Your task to perform on an android device: add a contact in the contacts app Image 0: 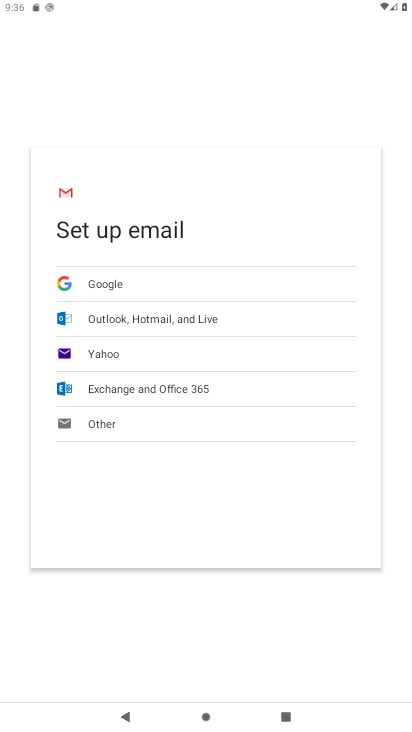
Step 0: press home button
Your task to perform on an android device: add a contact in the contacts app Image 1: 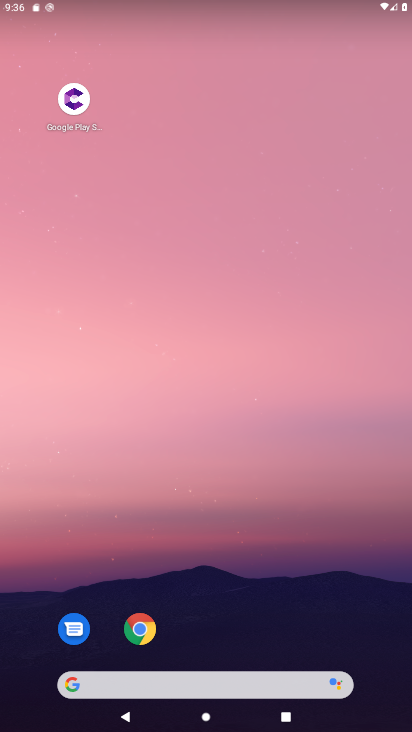
Step 1: drag from (216, 570) to (229, 174)
Your task to perform on an android device: add a contact in the contacts app Image 2: 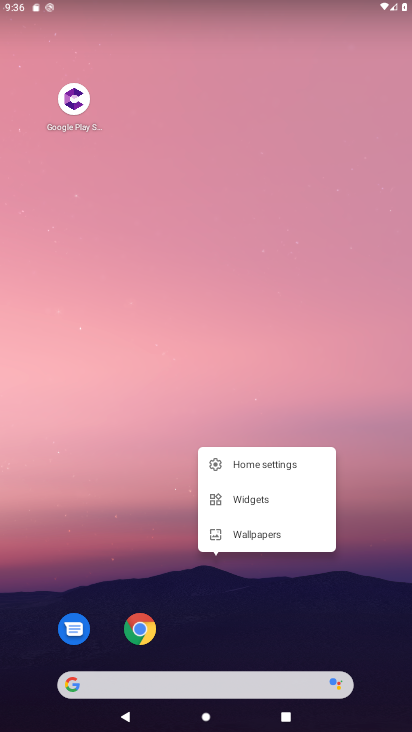
Step 2: click (104, 397)
Your task to perform on an android device: add a contact in the contacts app Image 3: 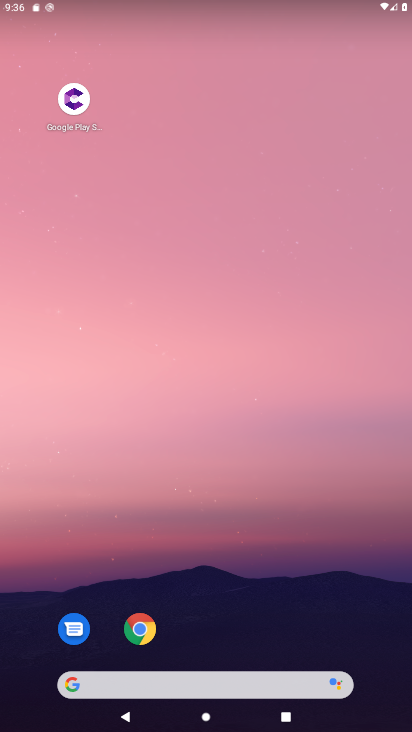
Step 3: drag from (289, 600) to (312, 26)
Your task to perform on an android device: add a contact in the contacts app Image 4: 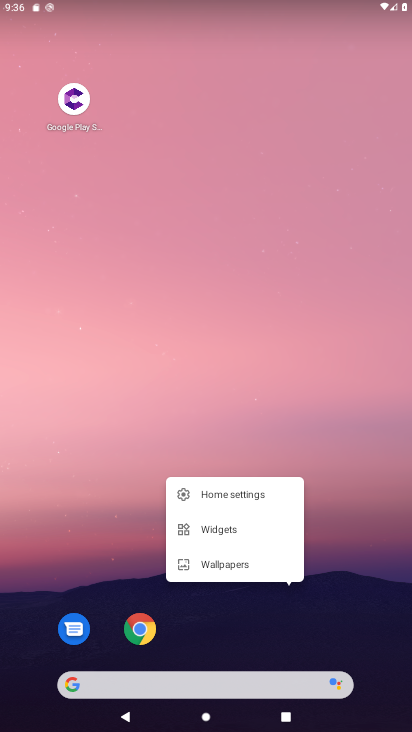
Step 4: click (361, 531)
Your task to perform on an android device: add a contact in the contacts app Image 5: 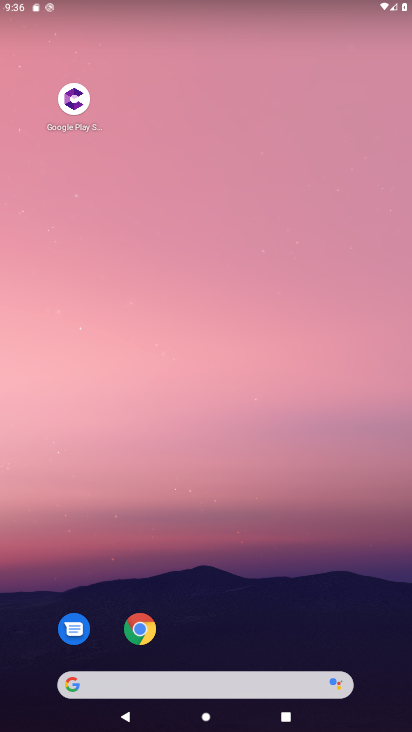
Step 5: drag from (232, 608) to (131, 53)
Your task to perform on an android device: add a contact in the contacts app Image 6: 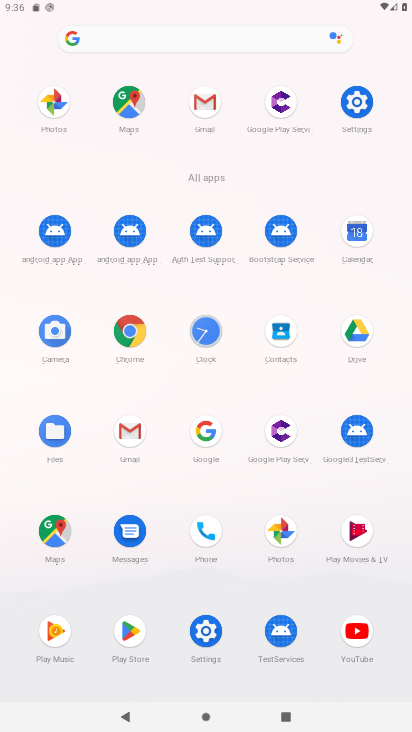
Step 6: click (277, 337)
Your task to perform on an android device: add a contact in the contacts app Image 7: 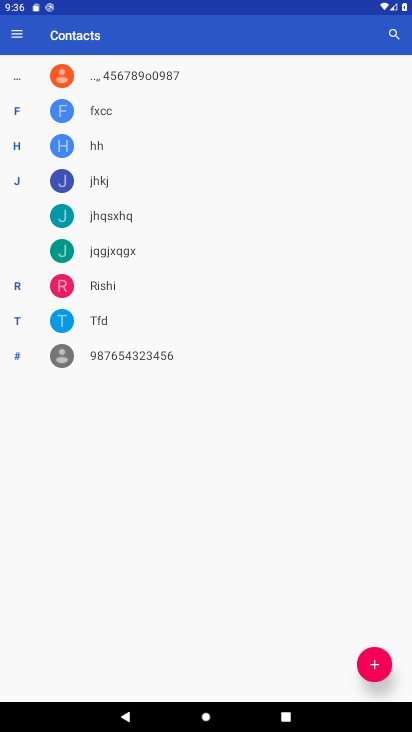
Step 7: click (381, 671)
Your task to perform on an android device: add a contact in the contacts app Image 8: 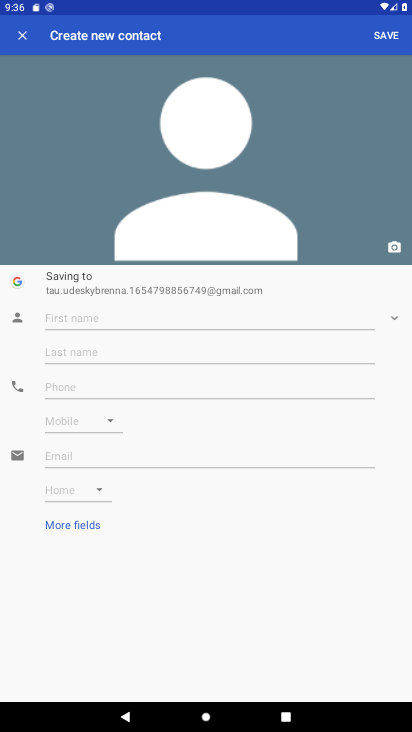
Step 8: click (163, 312)
Your task to perform on an android device: add a contact in the contacts app Image 9: 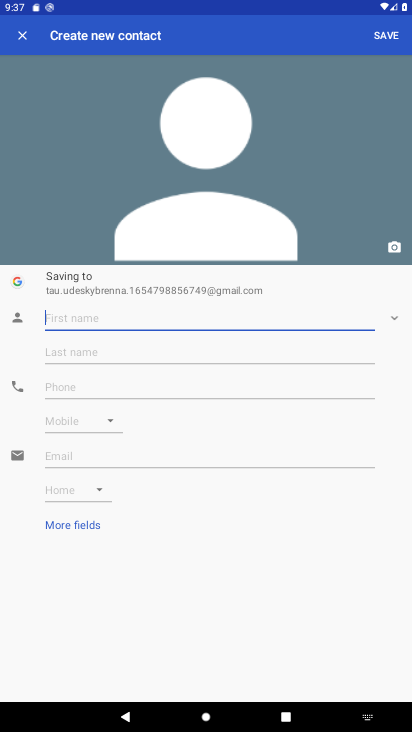
Step 9: type "ss"
Your task to perform on an android device: add a contact in the contacts app Image 10: 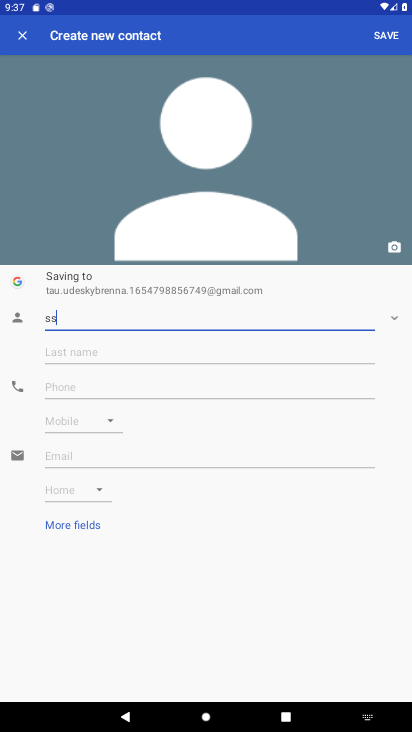
Step 10: click (102, 376)
Your task to perform on an android device: add a contact in the contacts app Image 11: 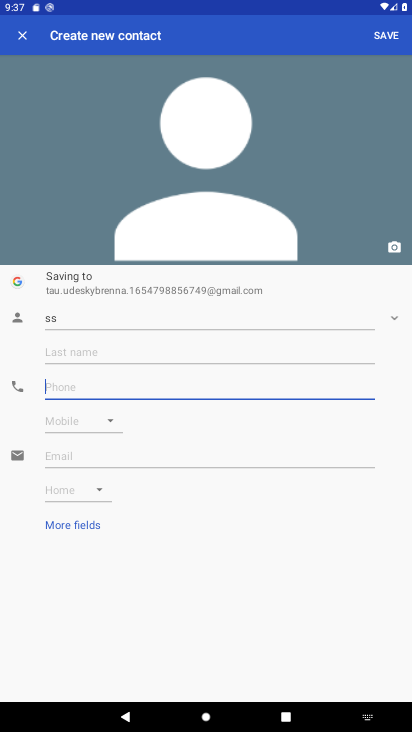
Step 11: type "2222"
Your task to perform on an android device: add a contact in the contacts app Image 12: 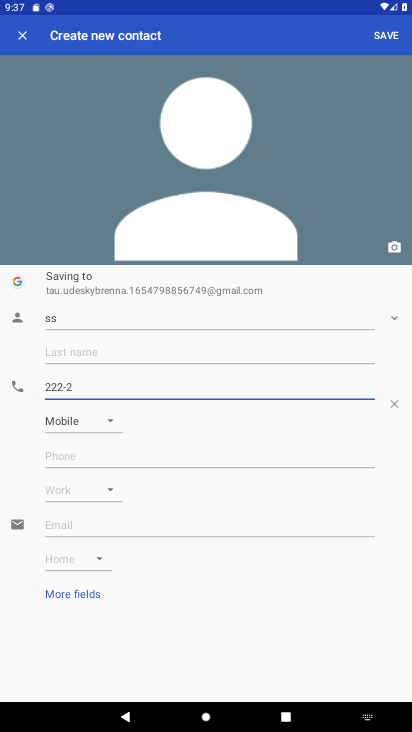
Step 12: click (390, 32)
Your task to perform on an android device: add a contact in the contacts app Image 13: 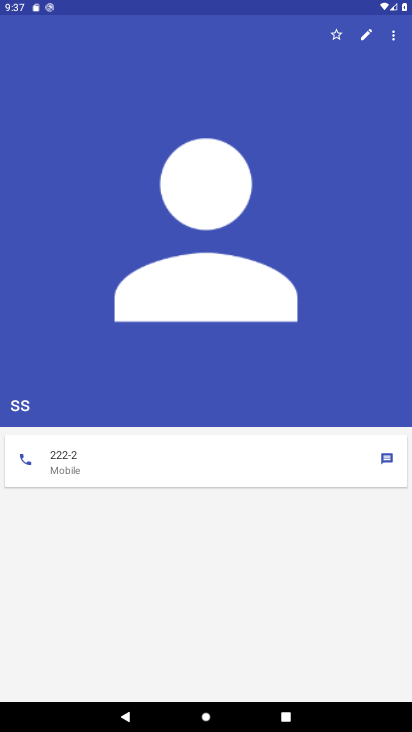
Step 13: task complete